Your task to perform on an android device: change the clock display to show seconds Image 0: 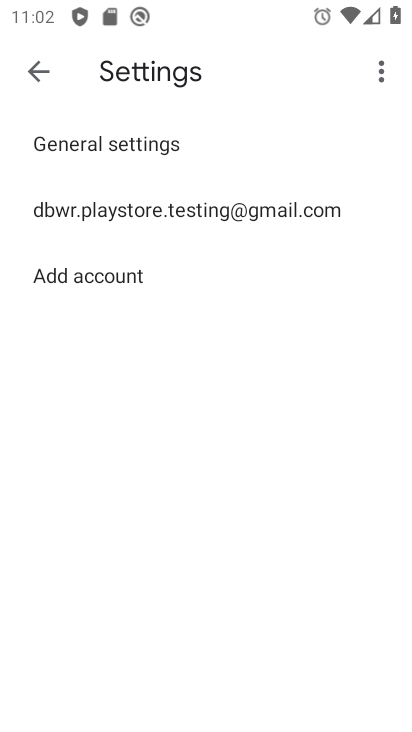
Step 0: press home button
Your task to perform on an android device: change the clock display to show seconds Image 1: 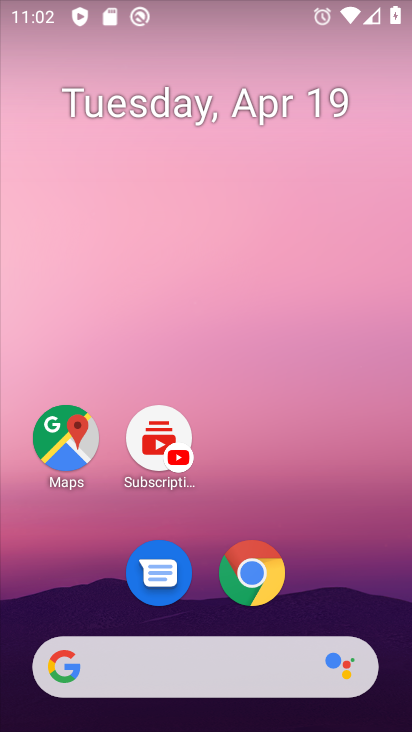
Step 1: drag from (321, 426) to (267, 109)
Your task to perform on an android device: change the clock display to show seconds Image 2: 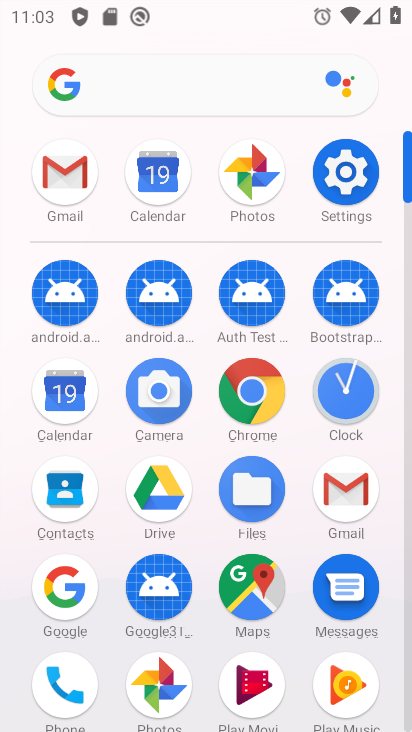
Step 2: click (350, 391)
Your task to perform on an android device: change the clock display to show seconds Image 3: 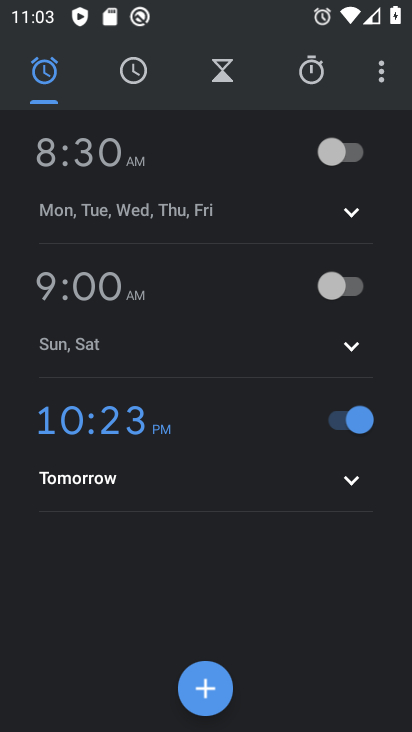
Step 3: click (387, 65)
Your task to perform on an android device: change the clock display to show seconds Image 4: 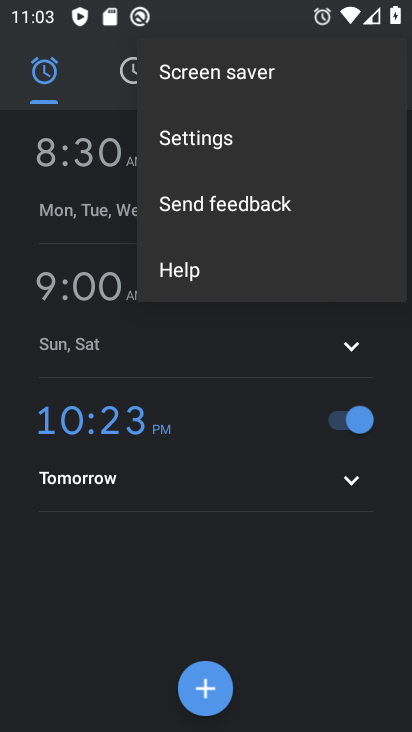
Step 4: click (210, 136)
Your task to perform on an android device: change the clock display to show seconds Image 5: 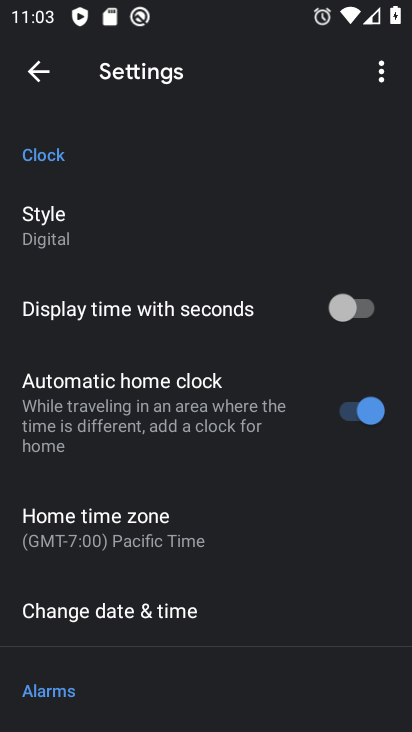
Step 5: click (351, 316)
Your task to perform on an android device: change the clock display to show seconds Image 6: 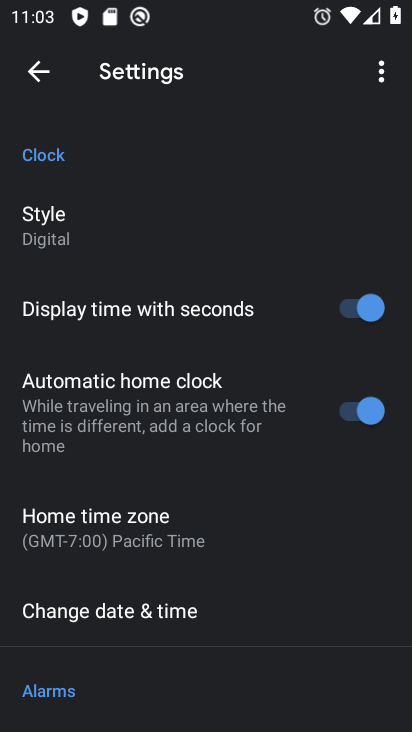
Step 6: task complete